Your task to perform on an android device: move a message to another label in the gmail app Image 0: 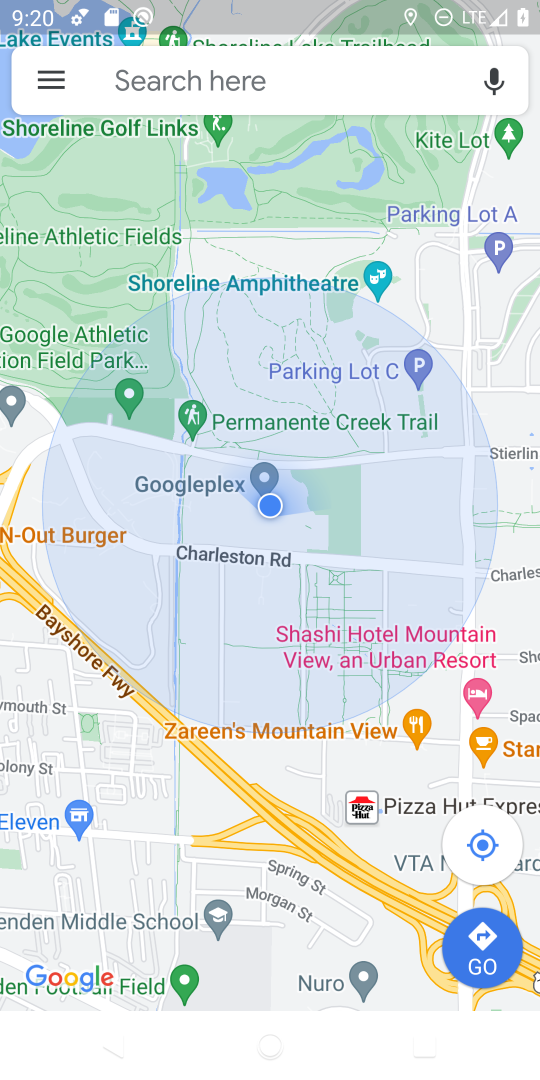
Step 0: press home button
Your task to perform on an android device: move a message to another label in the gmail app Image 1: 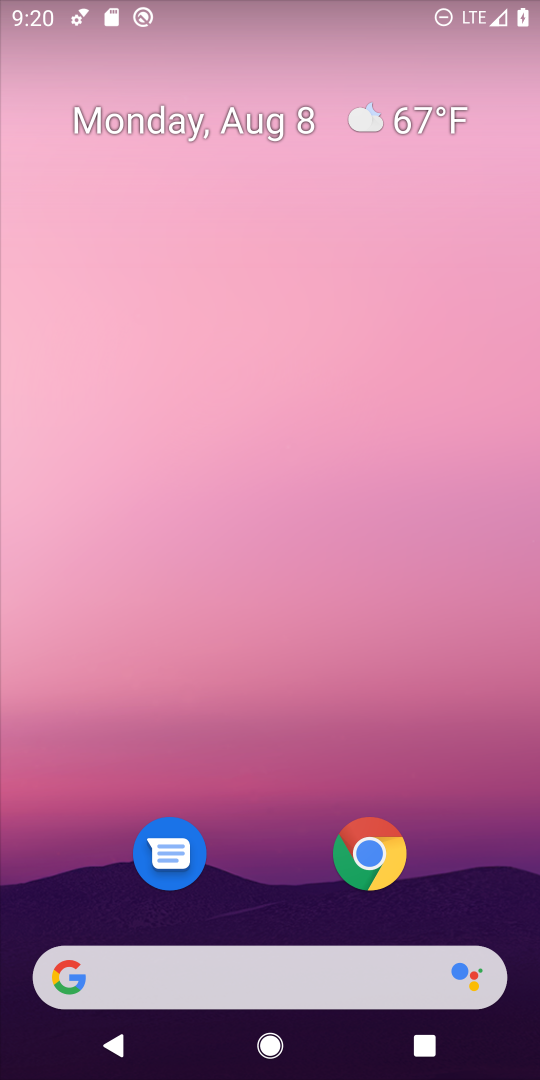
Step 1: drag from (275, 852) to (188, 22)
Your task to perform on an android device: move a message to another label in the gmail app Image 2: 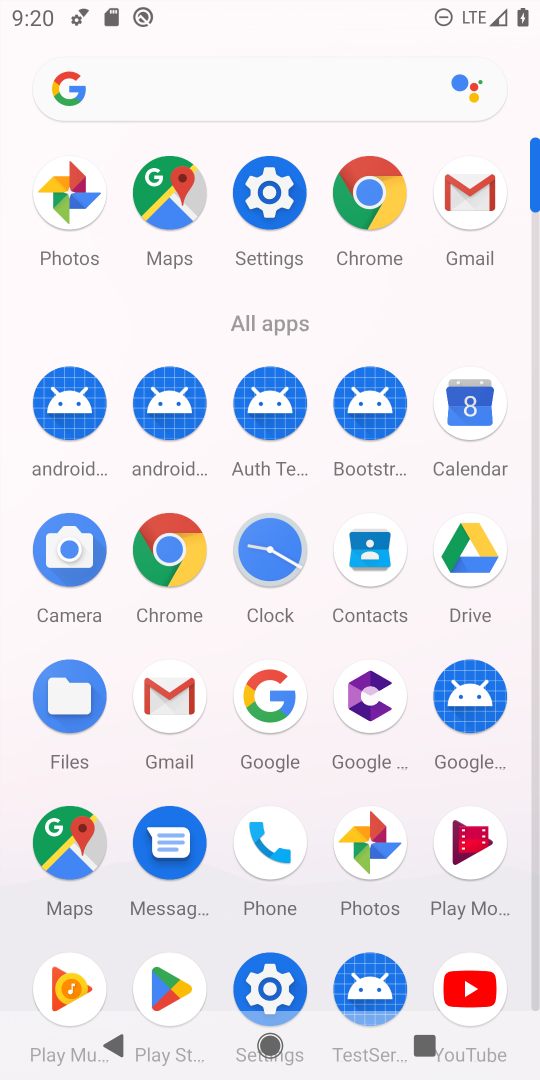
Step 2: click (470, 200)
Your task to perform on an android device: move a message to another label in the gmail app Image 3: 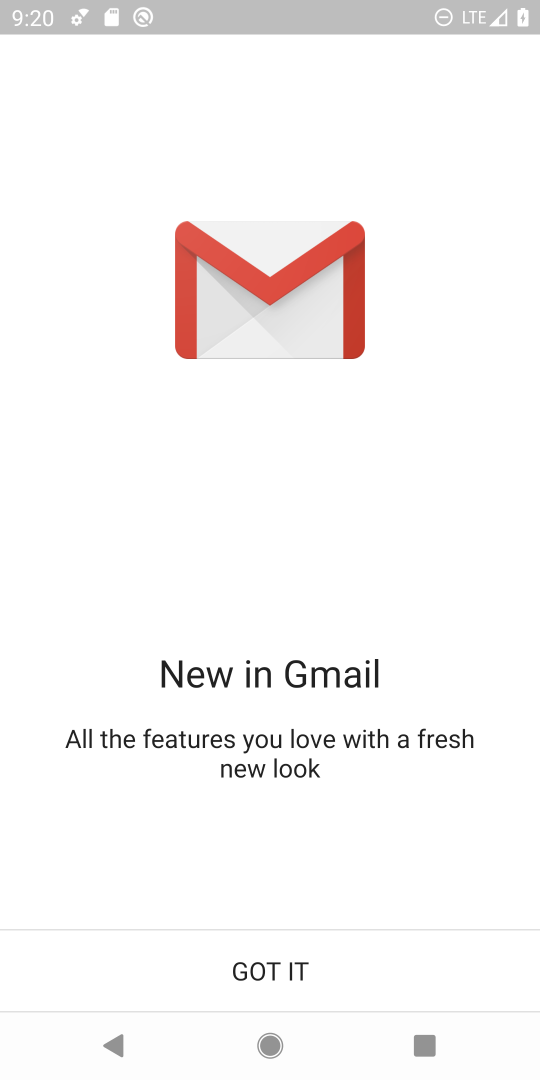
Step 3: click (303, 977)
Your task to perform on an android device: move a message to another label in the gmail app Image 4: 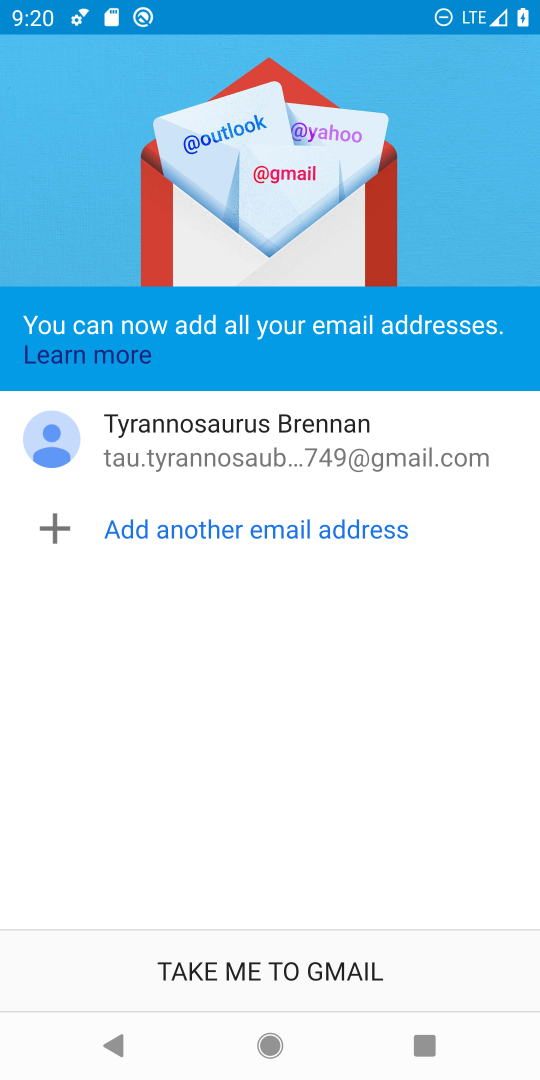
Step 4: click (209, 449)
Your task to perform on an android device: move a message to another label in the gmail app Image 5: 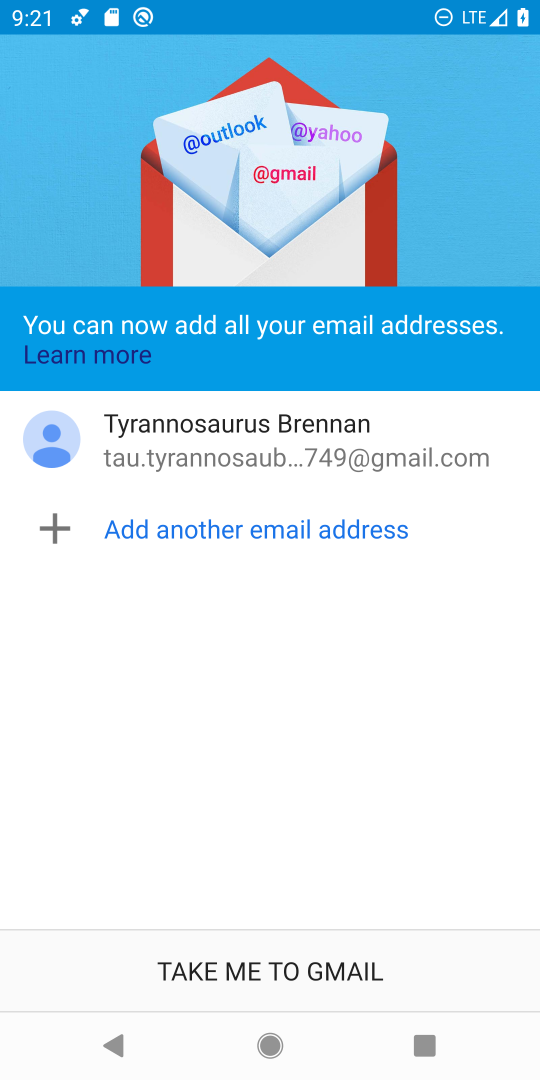
Step 5: click (324, 958)
Your task to perform on an android device: move a message to another label in the gmail app Image 6: 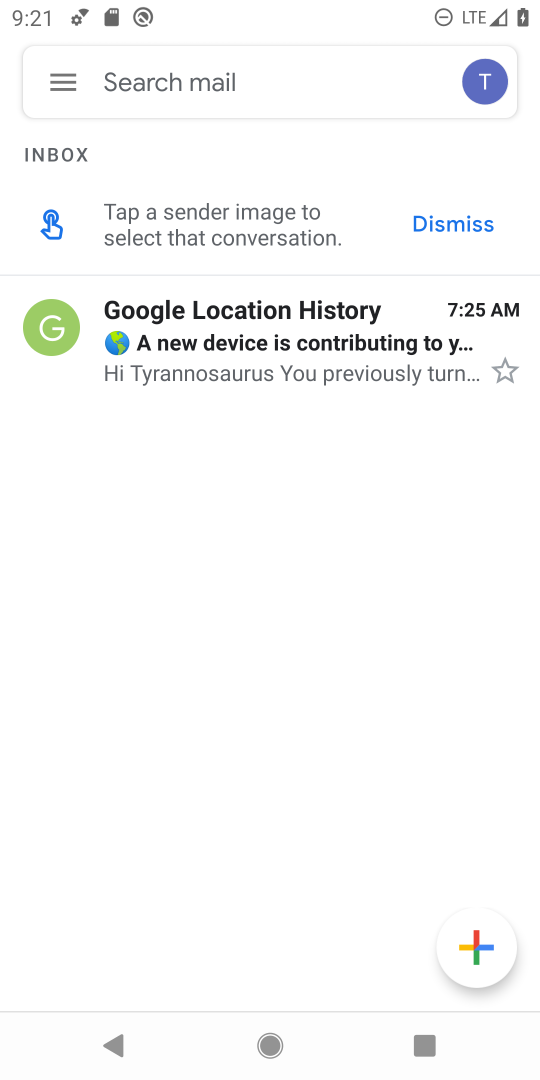
Step 6: click (304, 360)
Your task to perform on an android device: move a message to another label in the gmail app Image 7: 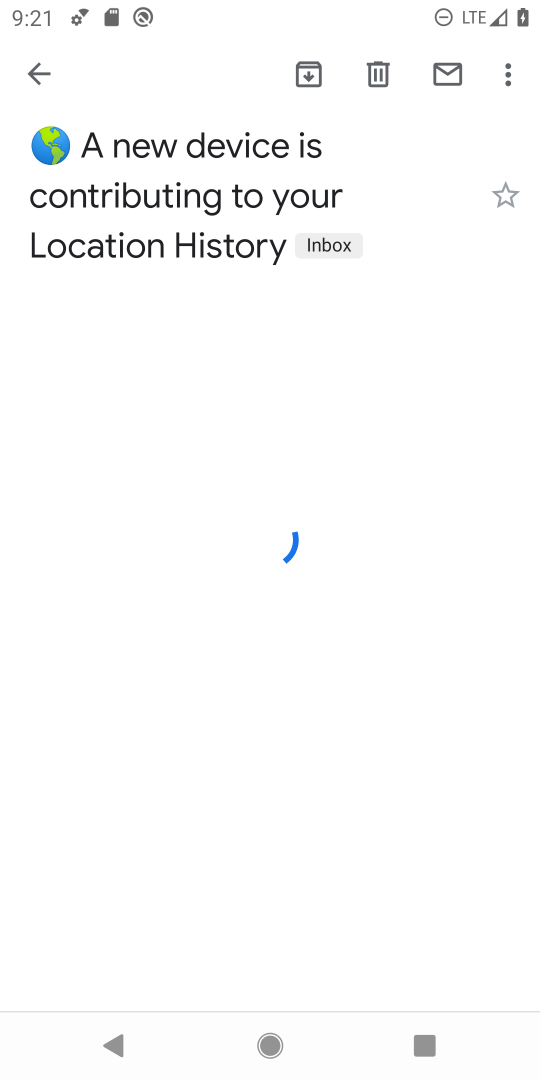
Step 7: click (510, 73)
Your task to perform on an android device: move a message to another label in the gmail app Image 8: 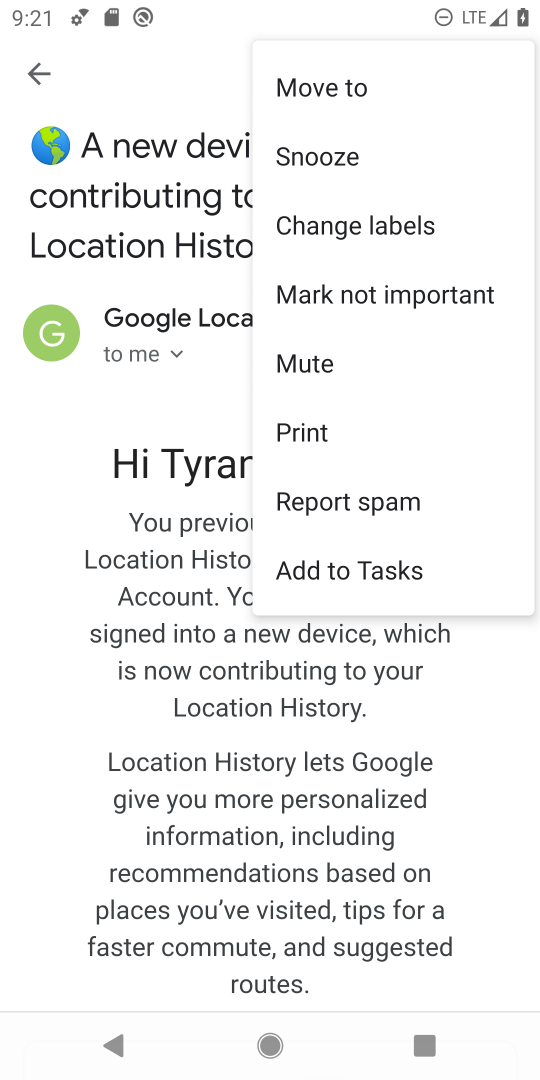
Step 8: click (340, 229)
Your task to perform on an android device: move a message to another label in the gmail app Image 9: 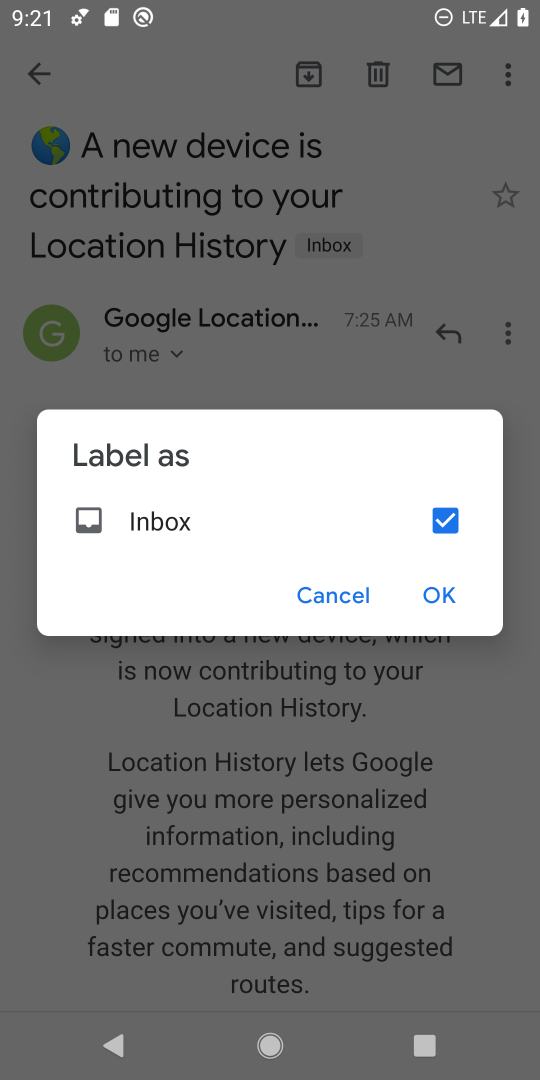
Step 9: click (436, 594)
Your task to perform on an android device: move a message to another label in the gmail app Image 10: 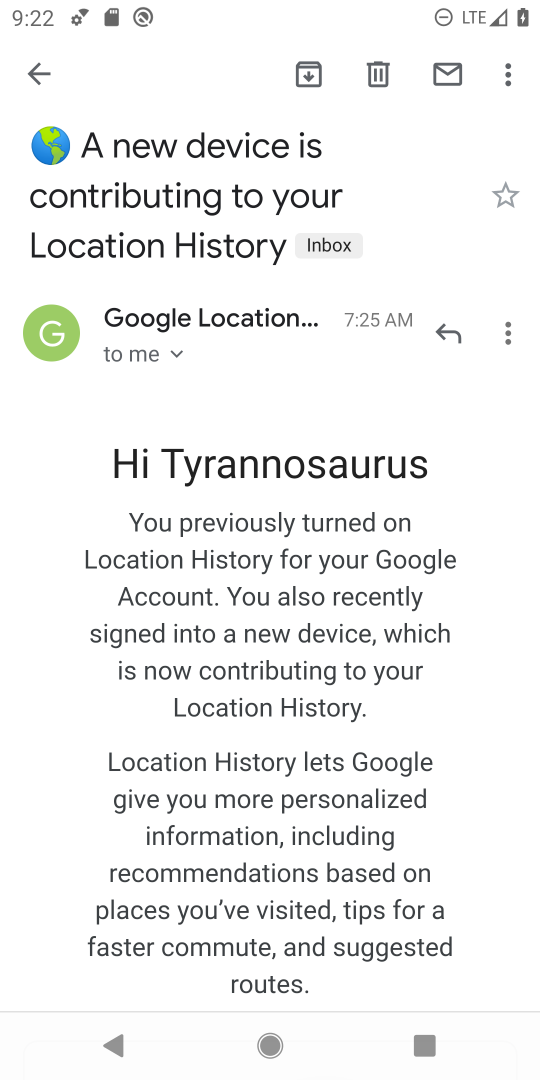
Step 10: task complete